Your task to perform on an android device: toggle show notifications on the lock screen Image 0: 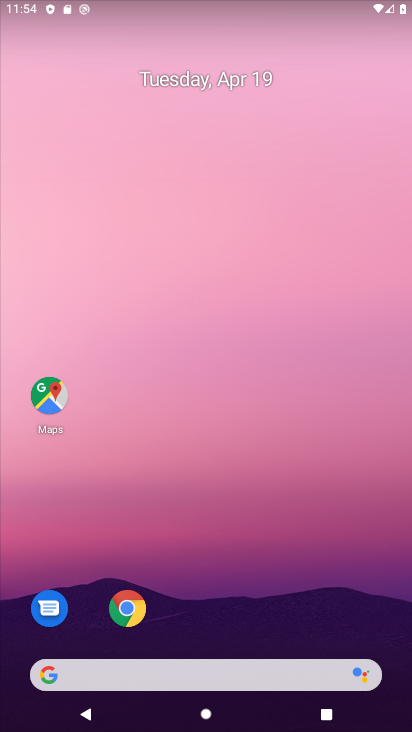
Step 0: drag from (239, 597) to (191, 20)
Your task to perform on an android device: toggle show notifications on the lock screen Image 1: 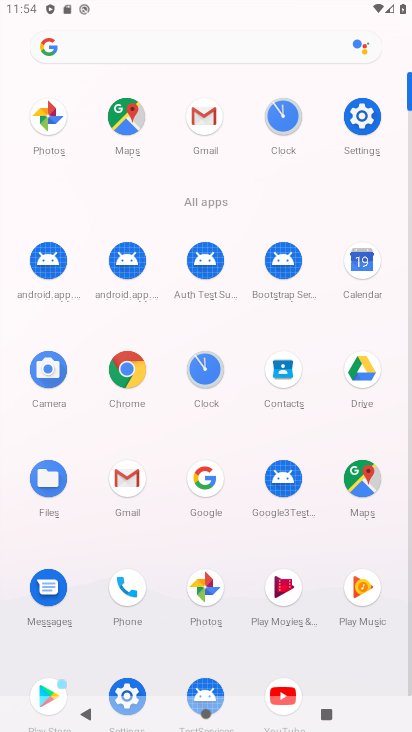
Step 1: click (366, 118)
Your task to perform on an android device: toggle show notifications on the lock screen Image 2: 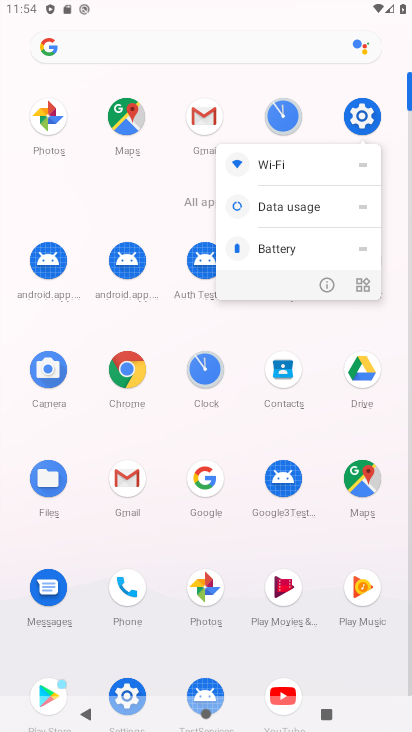
Step 2: click (363, 111)
Your task to perform on an android device: toggle show notifications on the lock screen Image 3: 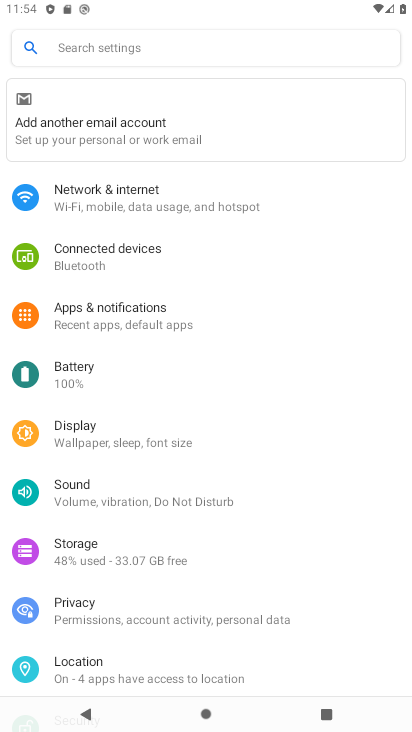
Step 3: click (140, 319)
Your task to perform on an android device: toggle show notifications on the lock screen Image 4: 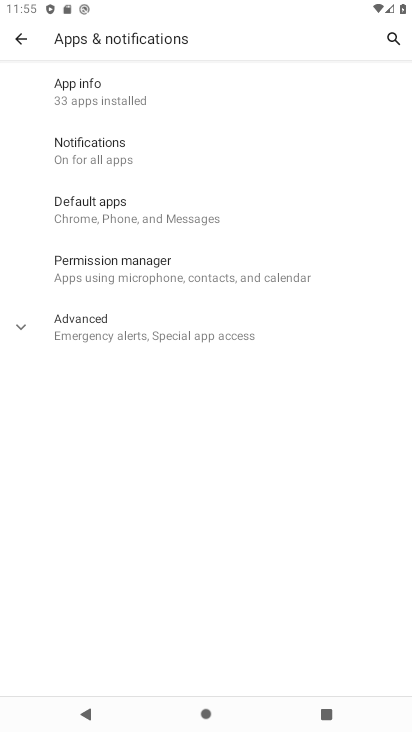
Step 4: click (111, 143)
Your task to perform on an android device: toggle show notifications on the lock screen Image 5: 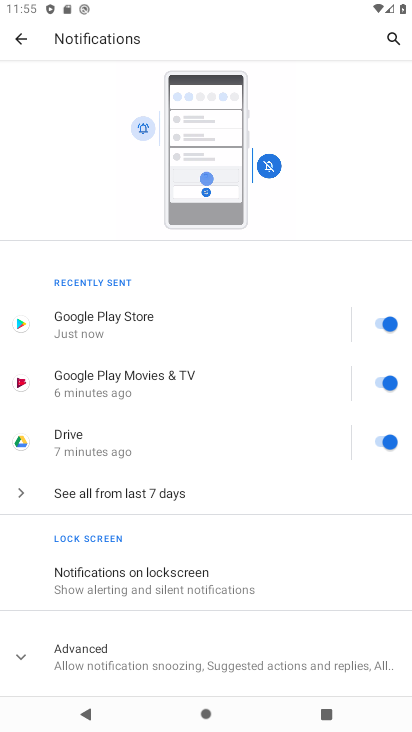
Step 5: click (209, 574)
Your task to perform on an android device: toggle show notifications on the lock screen Image 6: 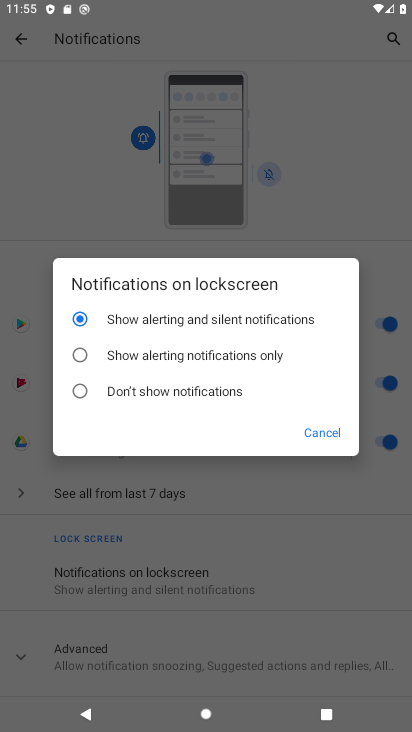
Step 6: click (76, 351)
Your task to perform on an android device: toggle show notifications on the lock screen Image 7: 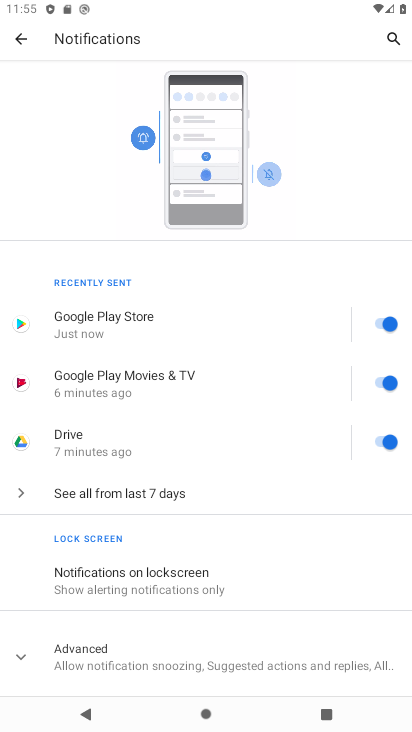
Step 7: task complete